Your task to perform on an android device: turn on airplane mode Image 0: 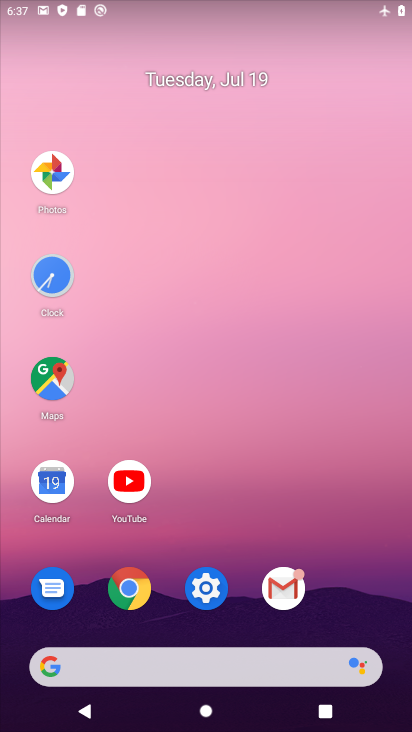
Step 0: click (206, 597)
Your task to perform on an android device: turn on airplane mode Image 1: 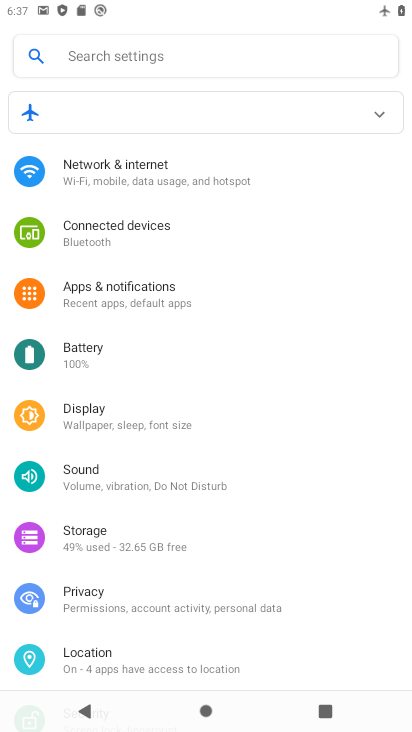
Step 1: click (139, 159)
Your task to perform on an android device: turn on airplane mode Image 2: 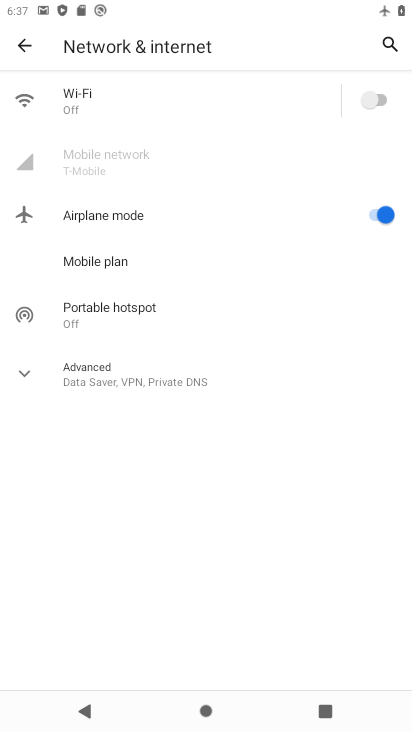
Step 2: task complete